Your task to perform on an android device: check storage Image 0: 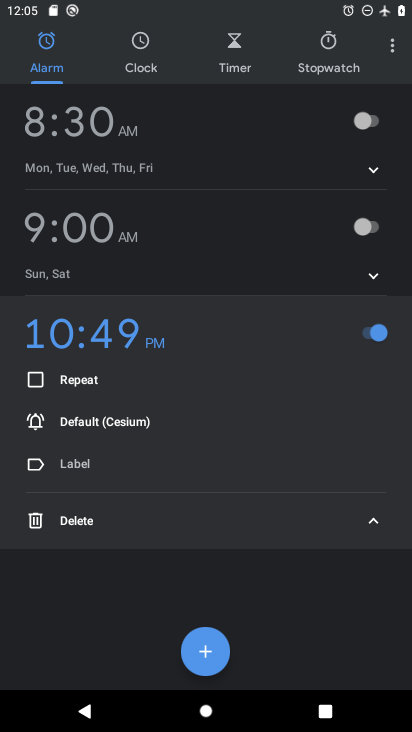
Step 0: press home button
Your task to perform on an android device: check storage Image 1: 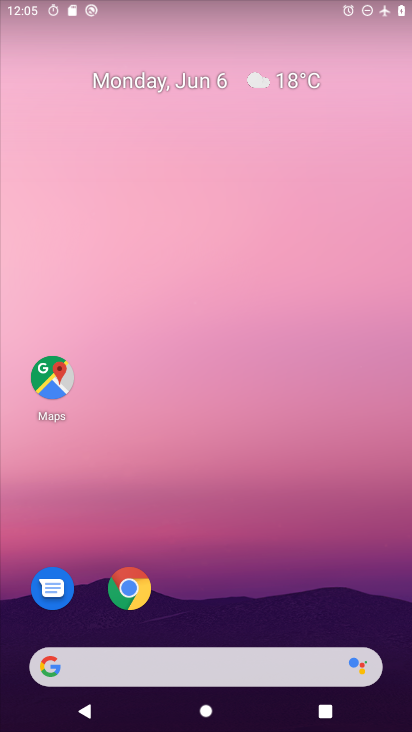
Step 1: drag from (312, 577) to (322, 164)
Your task to perform on an android device: check storage Image 2: 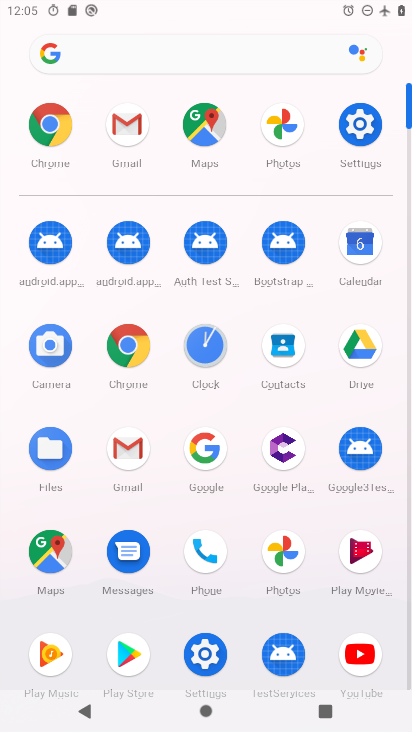
Step 2: click (362, 136)
Your task to perform on an android device: check storage Image 3: 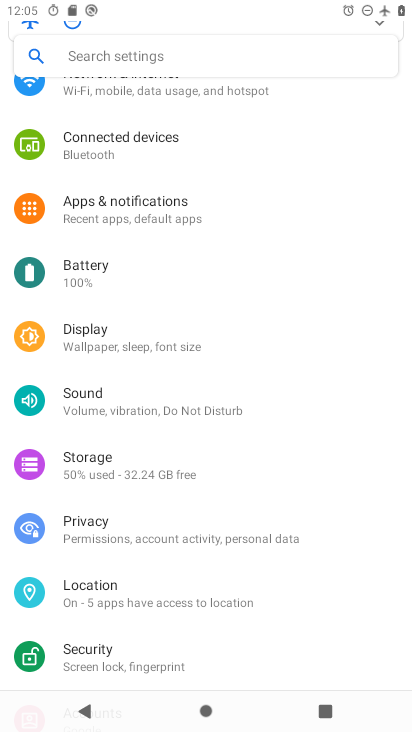
Step 3: drag from (369, 580) to (355, 410)
Your task to perform on an android device: check storage Image 4: 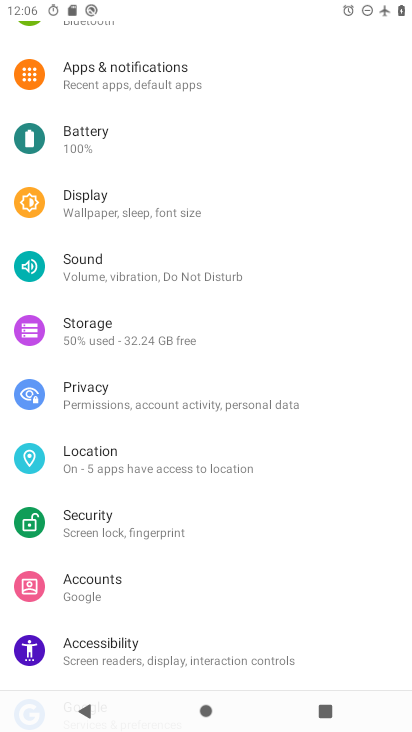
Step 4: drag from (365, 426) to (365, 376)
Your task to perform on an android device: check storage Image 5: 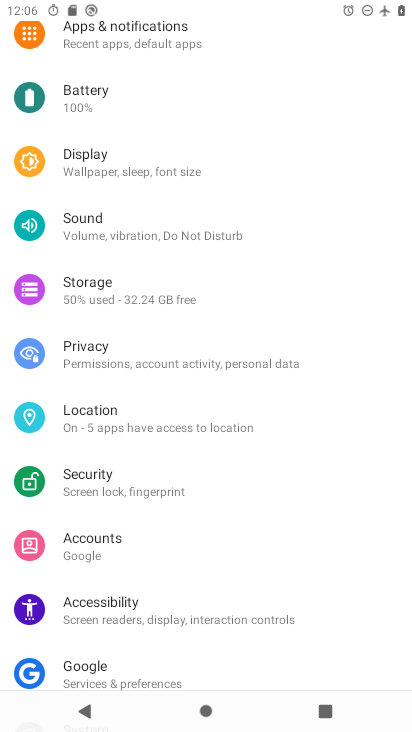
Step 5: drag from (366, 536) to (370, 327)
Your task to perform on an android device: check storage Image 6: 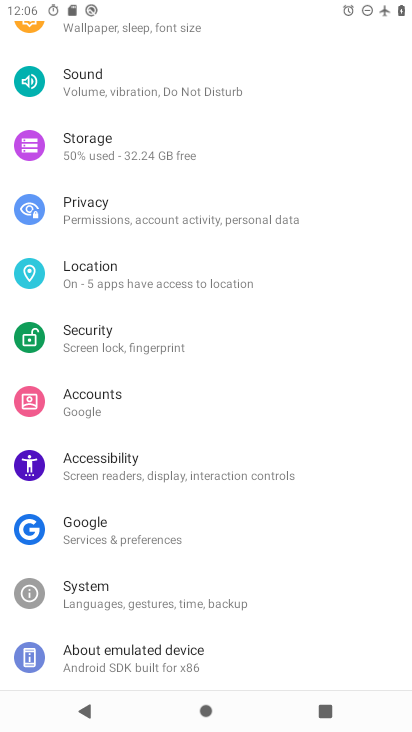
Step 6: drag from (371, 251) to (364, 322)
Your task to perform on an android device: check storage Image 7: 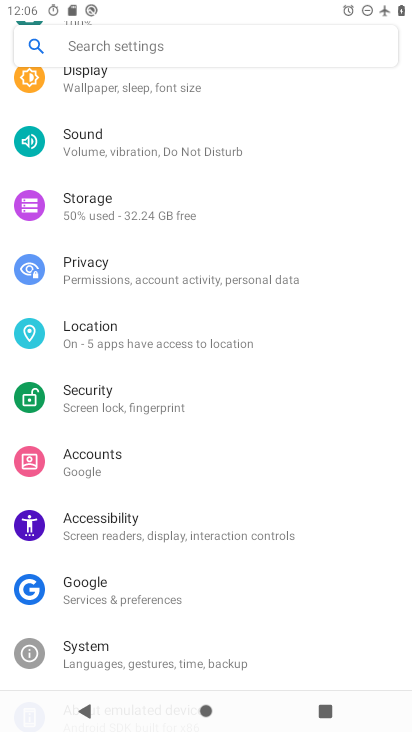
Step 7: drag from (359, 243) to (358, 357)
Your task to perform on an android device: check storage Image 8: 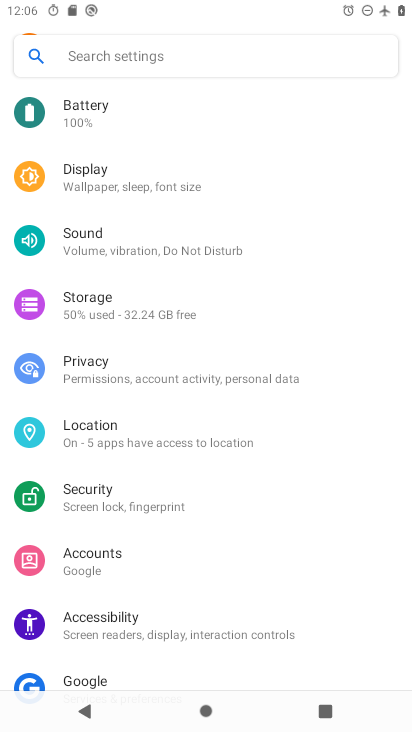
Step 8: drag from (358, 270) to (358, 390)
Your task to perform on an android device: check storage Image 9: 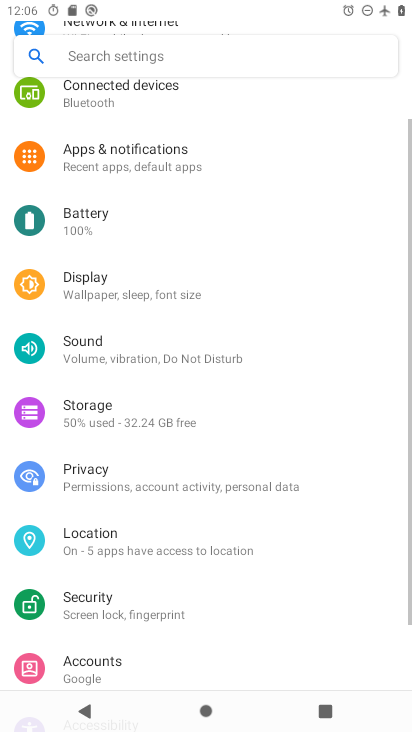
Step 9: drag from (356, 250) to (349, 380)
Your task to perform on an android device: check storage Image 10: 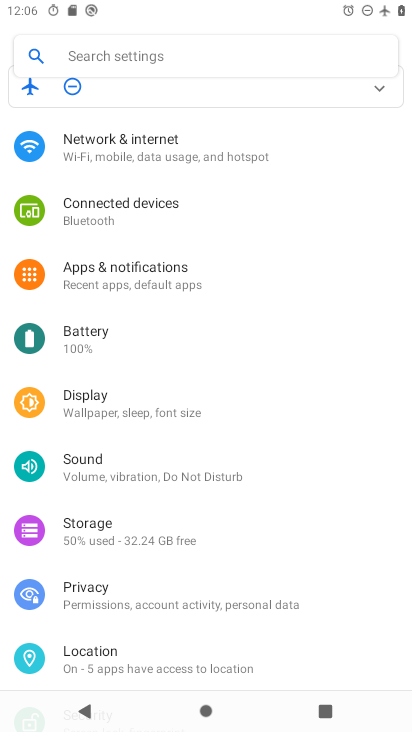
Step 10: click (220, 543)
Your task to perform on an android device: check storage Image 11: 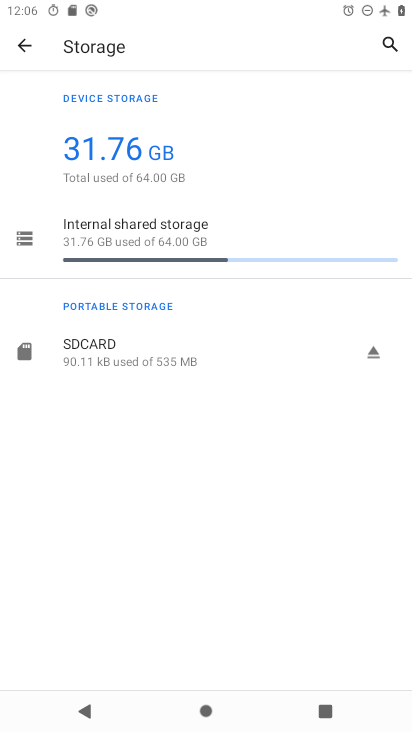
Step 11: task complete